Your task to perform on an android device: Go to privacy settings Image 0: 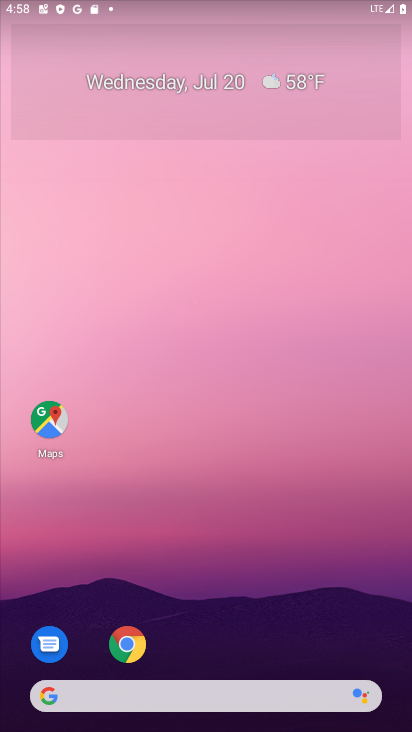
Step 0: press home button
Your task to perform on an android device: Go to privacy settings Image 1: 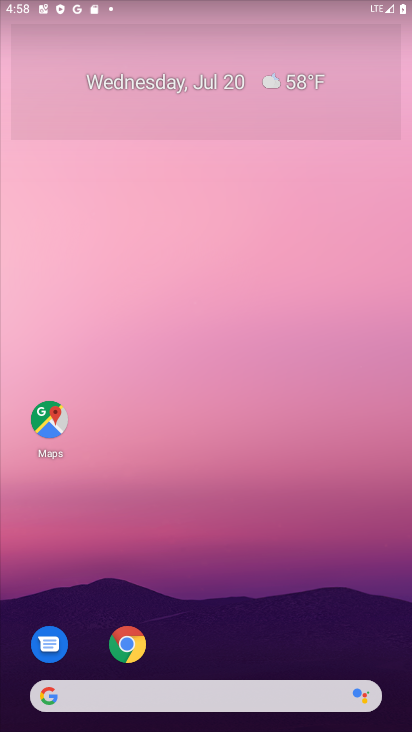
Step 1: click (315, 99)
Your task to perform on an android device: Go to privacy settings Image 2: 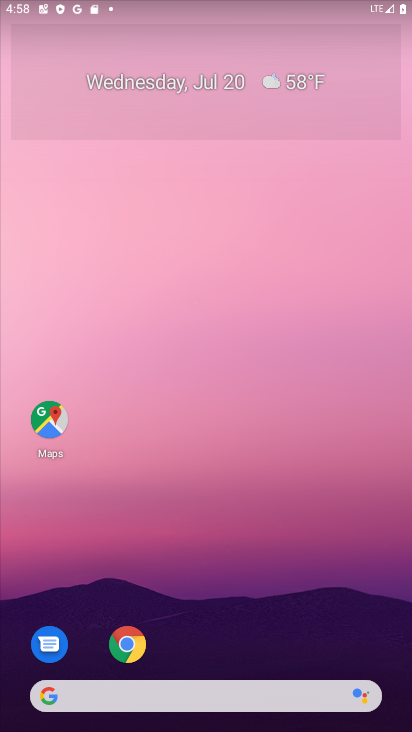
Step 2: drag from (206, 642) to (282, 64)
Your task to perform on an android device: Go to privacy settings Image 3: 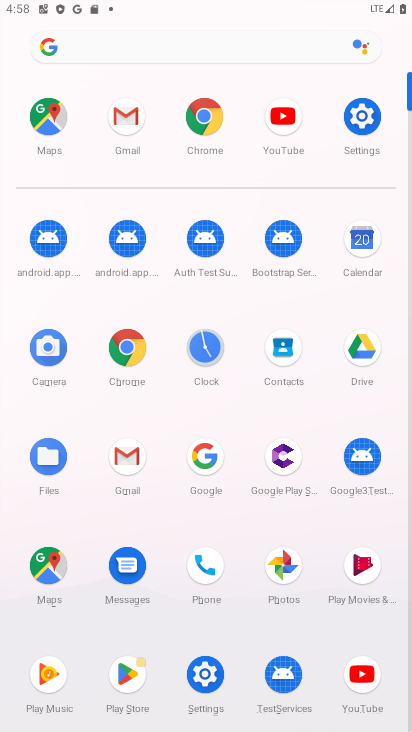
Step 3: click (367, 125)
Your task to perform on an android device: Go to privacy settings Image 4: 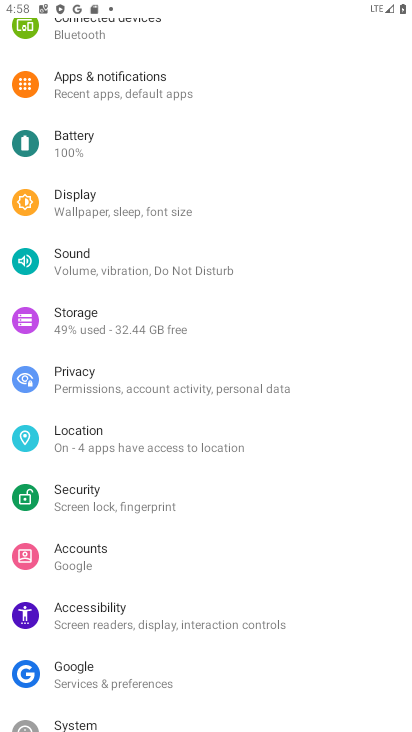
Step 4: click (73, 388)
Your task to perform on an android device: Go to privacy settings Image 5: 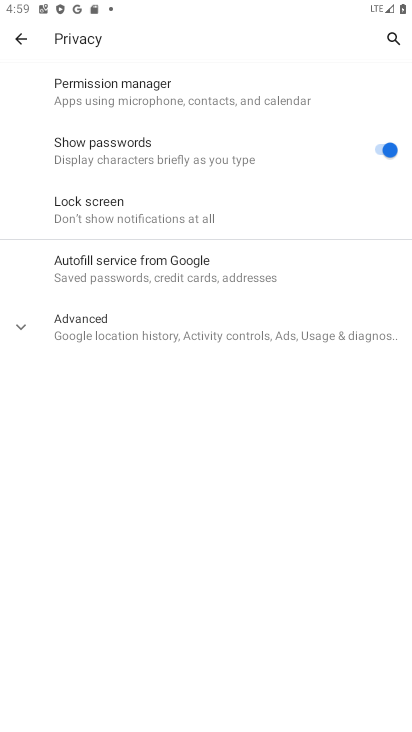
Step 5: task complete